Your task to perform on an android device: turn off smart reply in the gmail app Image 0: 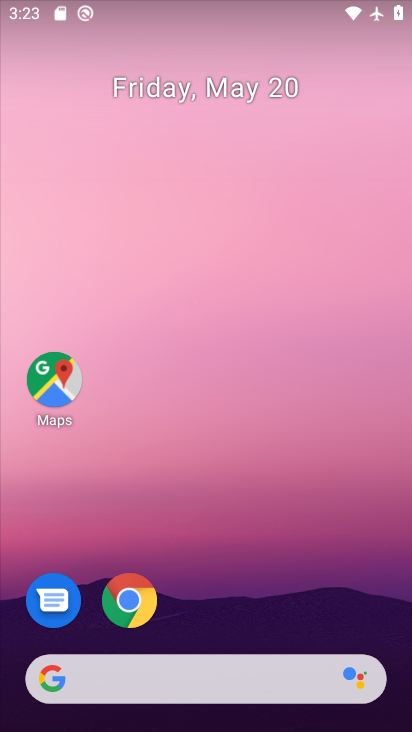
Step 0: drag from (313, 560) to (176, 45)
Your task to perform on an android device: turn off smart reply in the gmail app Image 1: 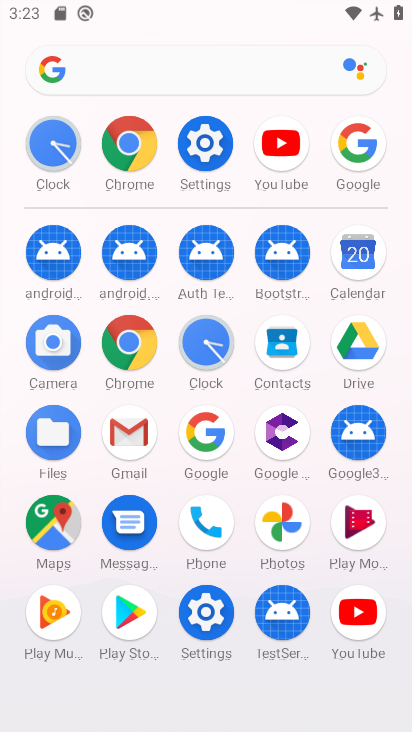
Step 1: click (128, 437)
Your task to perform on an android device: turn off smart reply in the gmail app Image 2: 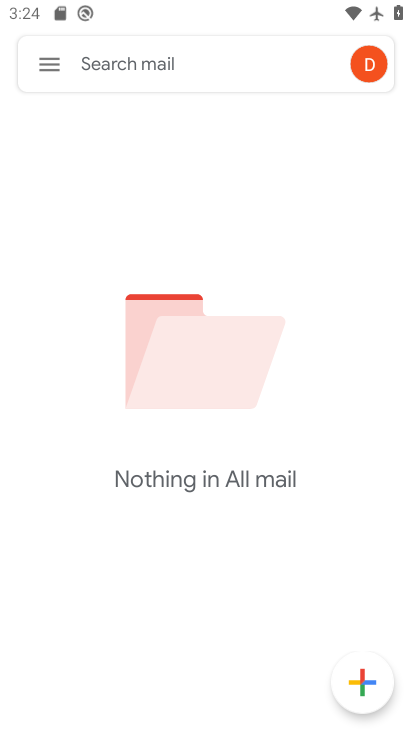
Step 2: click (46, 60)
Your task to perform on an android device: turn off smart reply in the gmail app Image 3: 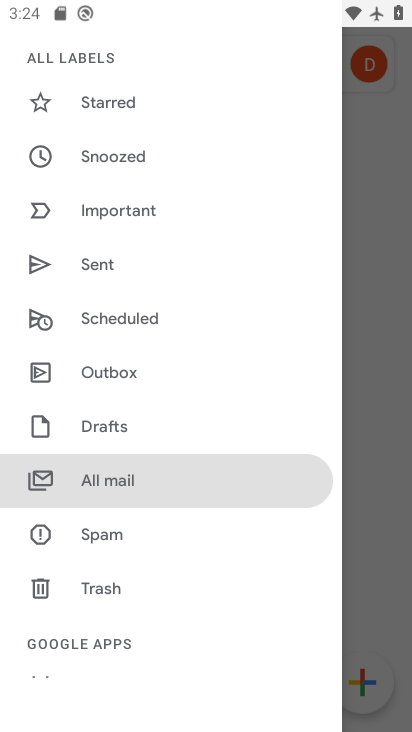
Step 3: drag from (174, 482) to (148, 105)
Your task to perform on an android device: turn off smart reply in the gmail app Image 4: 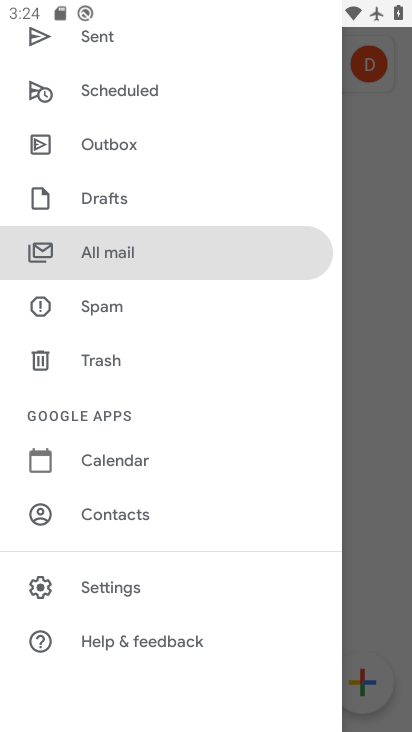
Step 4: click (149, 591)
Your task to perform on an android device: turn off smart reply in the gmail app Image 5: 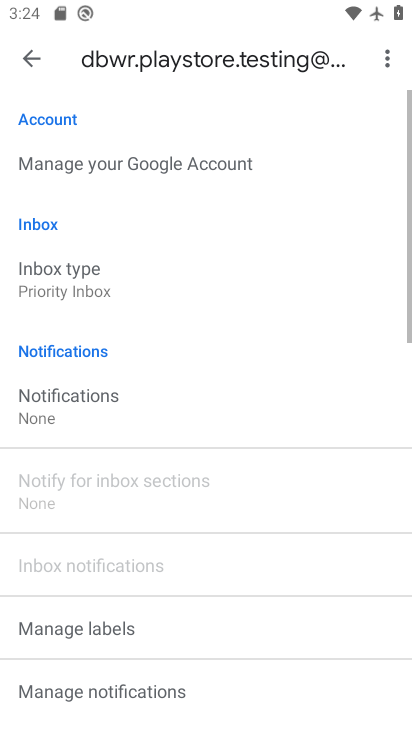
Step 5: drag from (224, 612) to (215, 123)
Your task to perform on an android device: turn off smart reply in the gmail app Image 6: 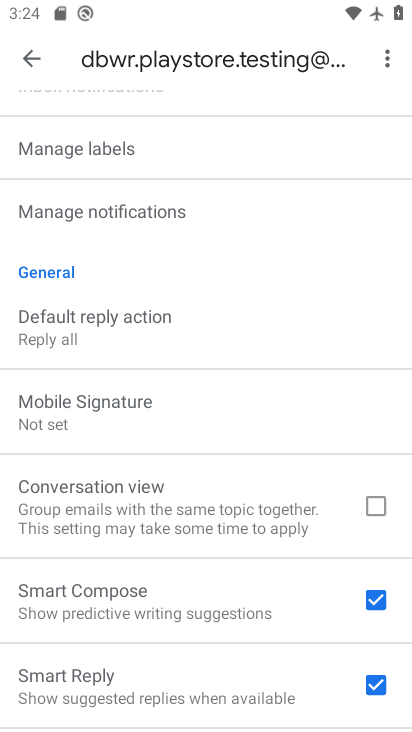
Step 6: click (383, 685)
Your task to perform on an android device: turn off smart reply in the gmail app Image 7: 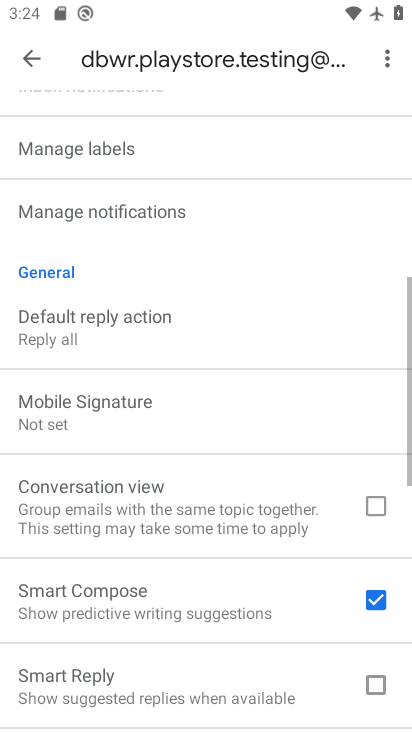
Step 7: task complete